Your task to perform on an android device: change your default location settings in chrome Image 0: 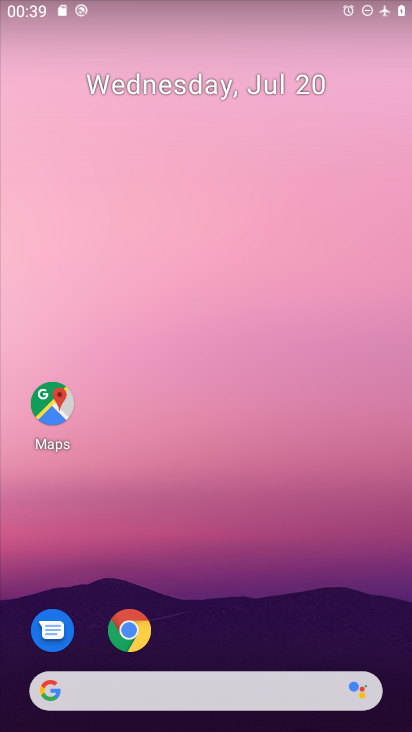
Step 0: click (148, 637)
Your task to perform on an android device: change your default location settings in chrome Image 1: 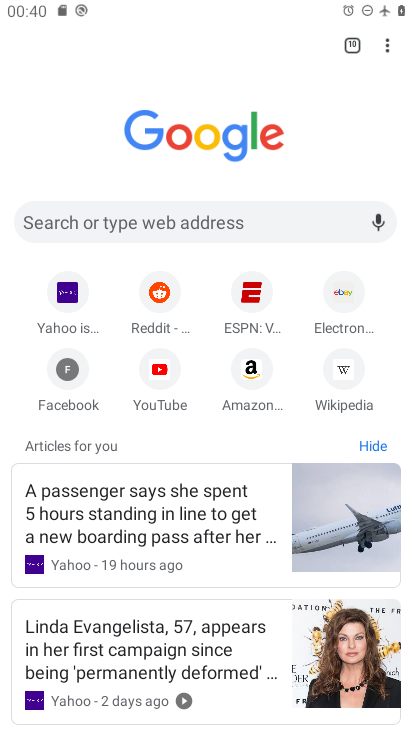
Step 1: click (394, 50)
Your task to perform on an android device: change your default location settings in chrome Image 2: 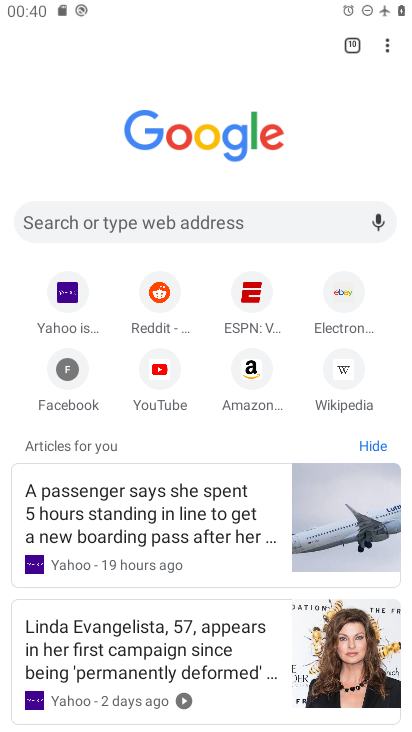
Step 2: click (394, 50)
Your task to perform on an android device: change your default location settings in chrome Image 3: 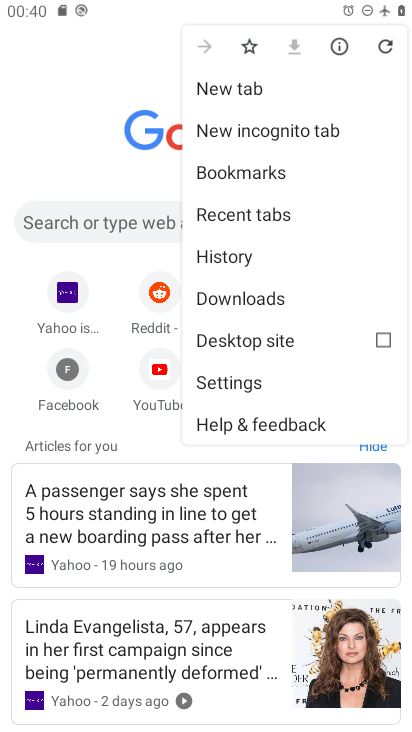
Step 3: click (247, 379)
Your task to perform on an android device: change your default location settings in chrome Image 4: 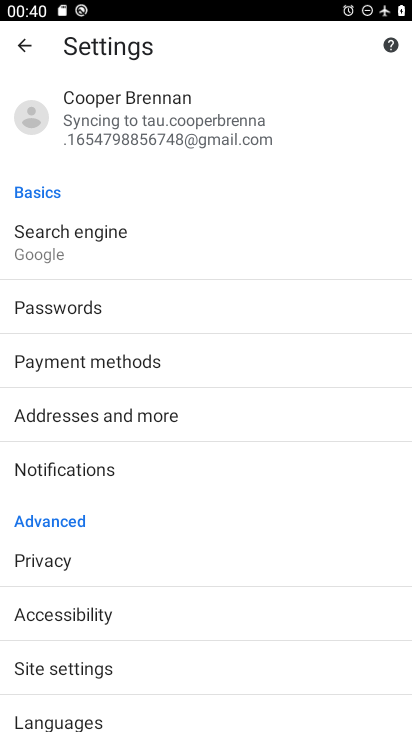
Step 4: drag from (129, 407) to (145, 343)
Your task to perform on an android device: change your default location settings in chrome Image 5: 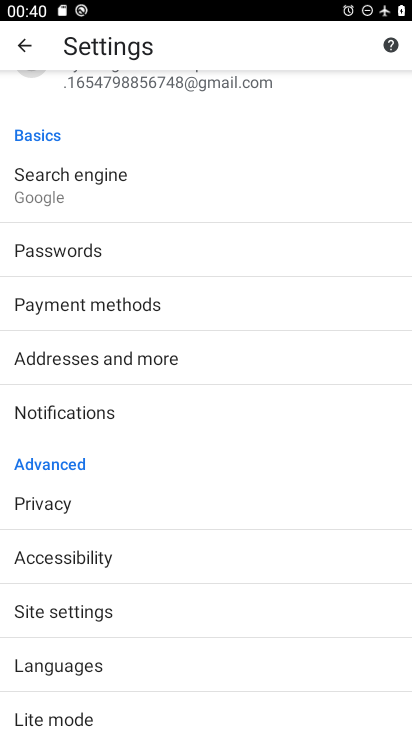
Step 5: click (117, 623)
Your task to perform on an android device: change your default location settings in chrome Image 6: 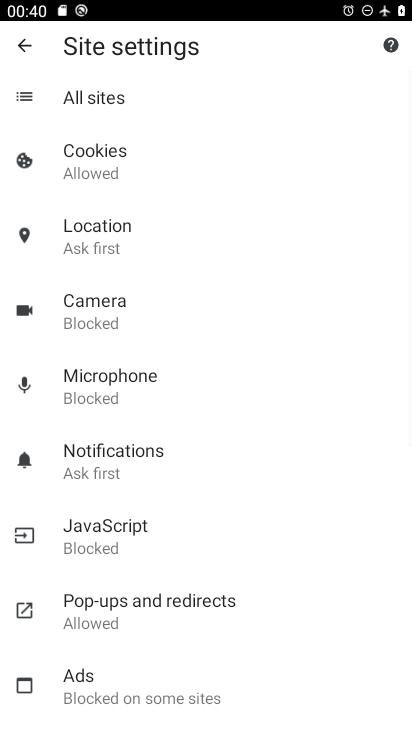
Step 6: click (128, 244)
Your task to perform on an android device: change your default location settings in chrome Image 7: 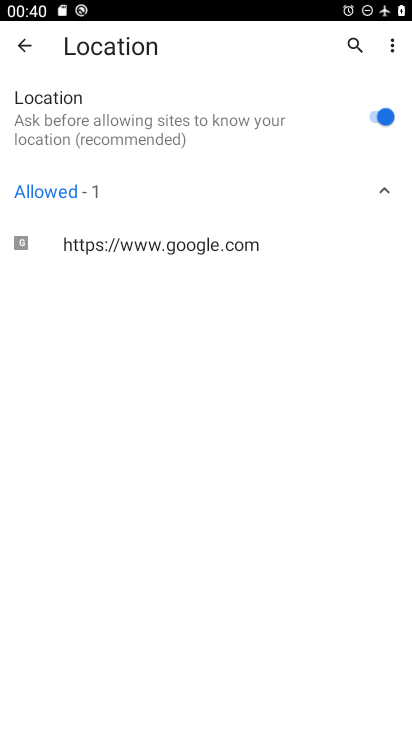
Step 7: click (369, 124)
Your task to perform on an android device: change your default location settings in chrome Image 8: 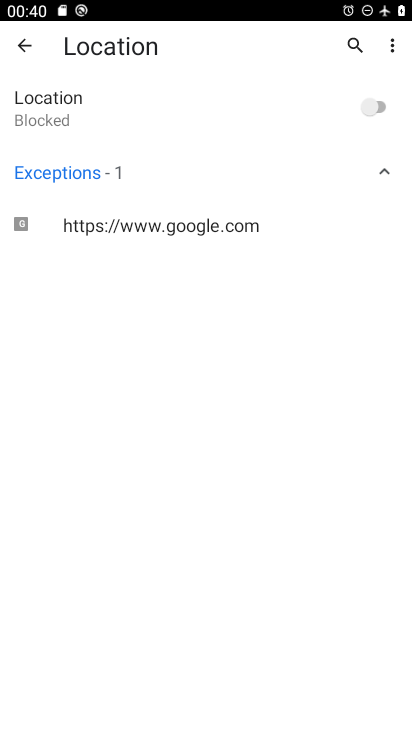
Step 8: task complete